Your task to perform on an android device: Search for the best books of all time on Goodreads Image 0: 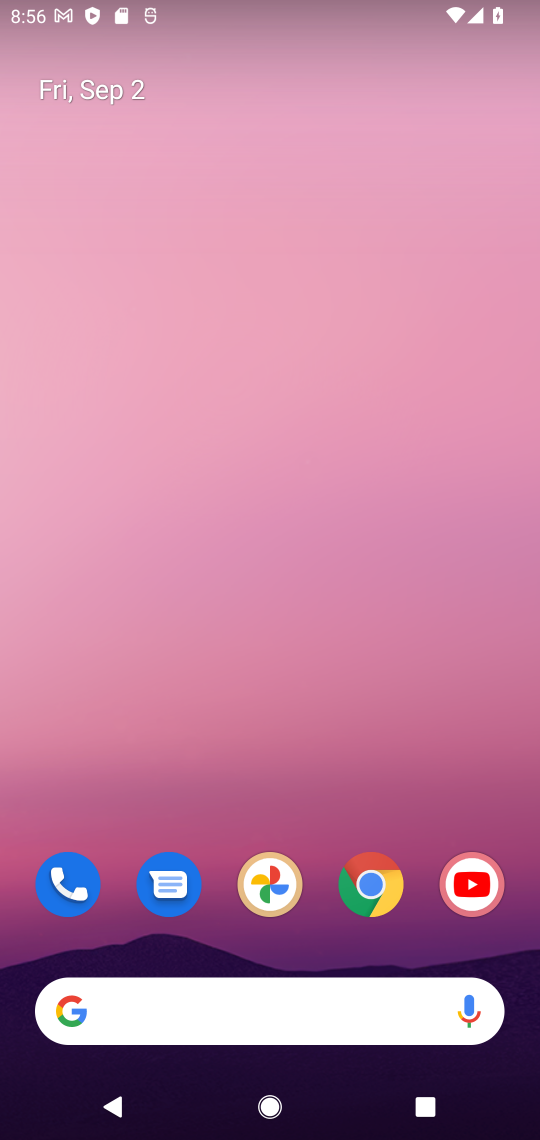
Step 0: click (393, 894)
Your task to perform on an android device: Search for the best books of all time on Goodreads Image 1: 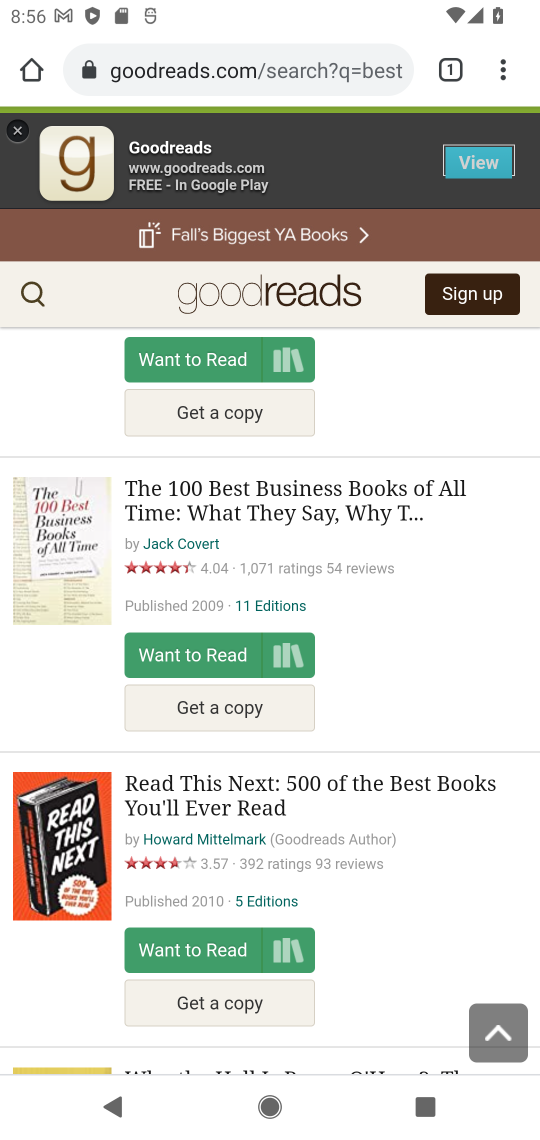
Step 1: click (38, 283)
Your task to perform on an android device: Search for the best books of all time on Goodreads Image 2: 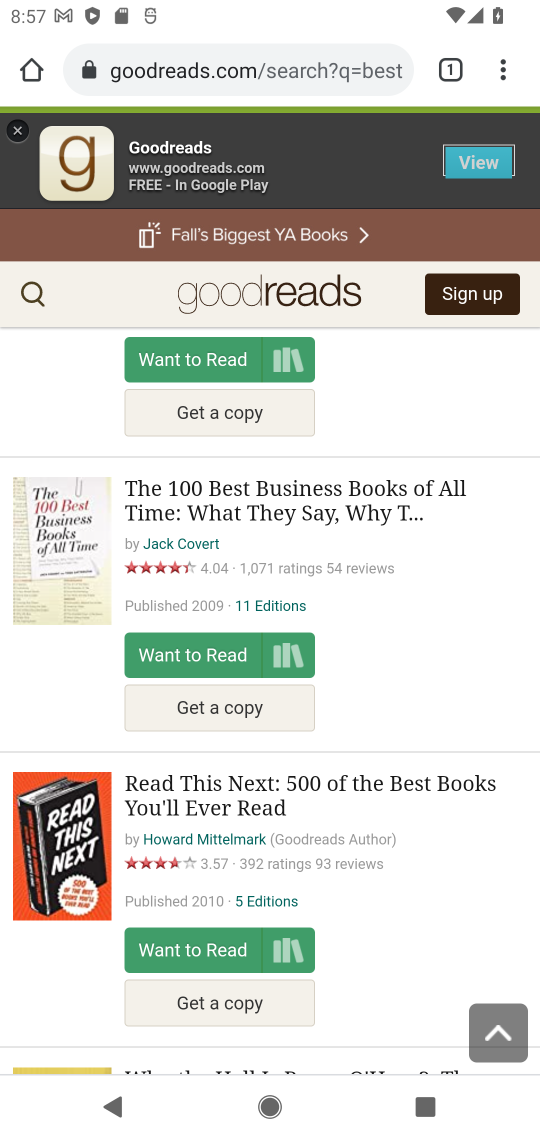
Step 2: click (30, 294)
Your task to perform on an android device: Search for the best books of all time on Goodreads Image 3: 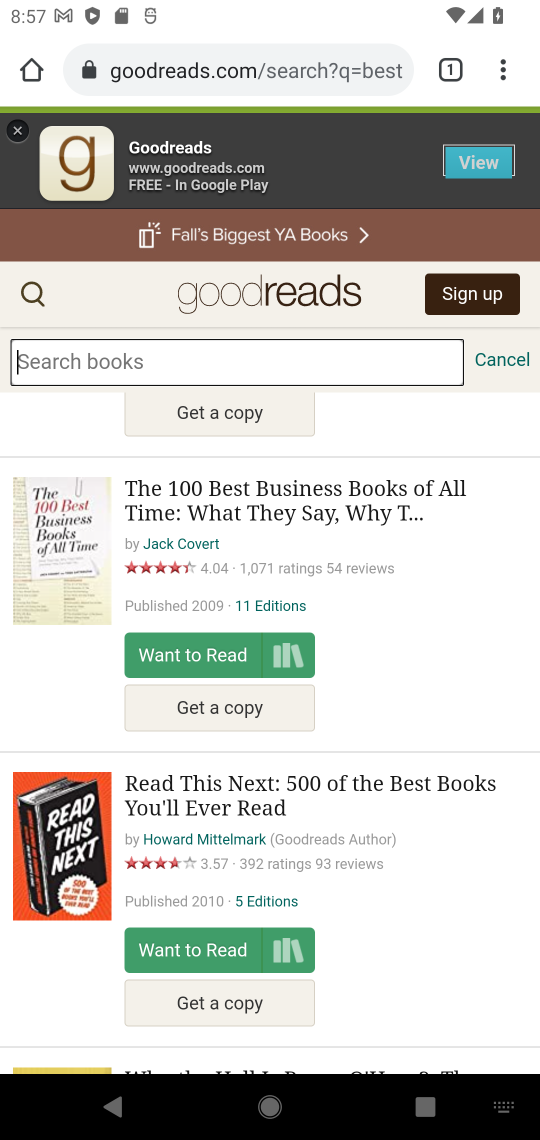
Step 3: click (71, 354)
Your task to perform on an android device: Search for the best books of all time on Goodreads Image 4: 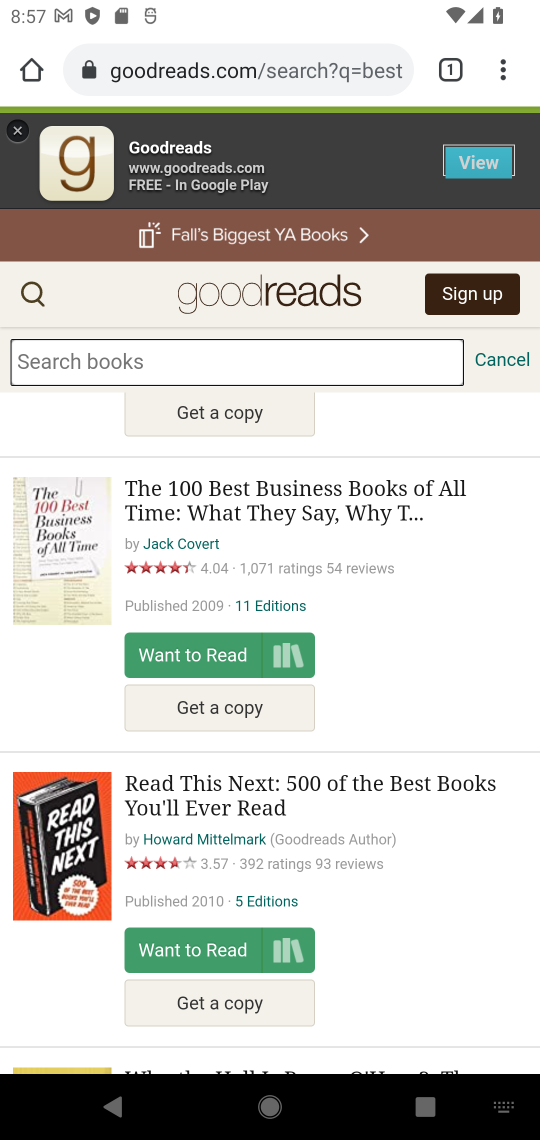
Step 4: type " best books of all time "
Your task to perform on an android device: Search for the best books of all time on Goodreads Image 5: 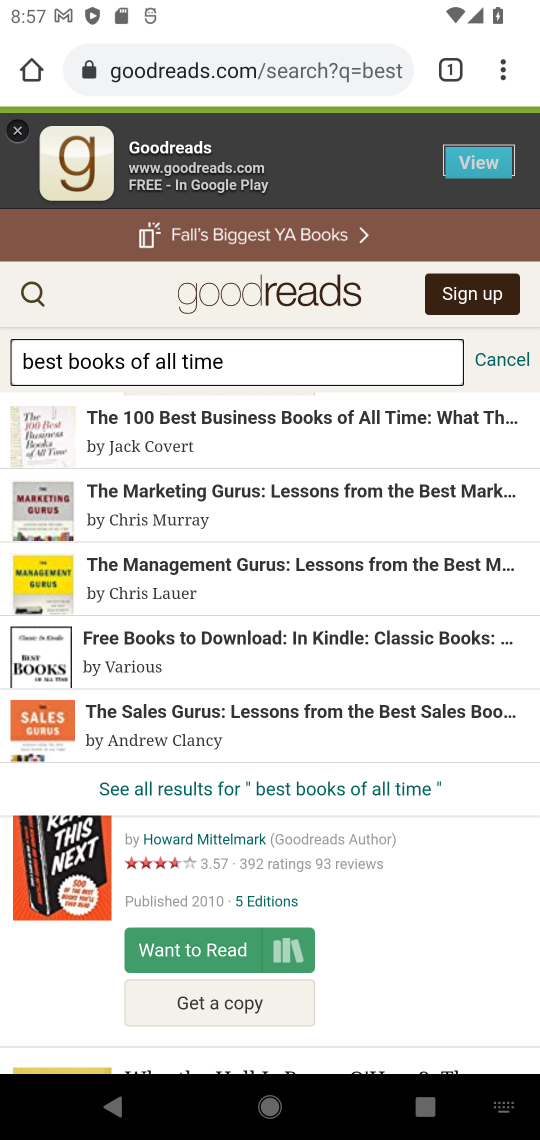
Step 5: click (346, 796)
Your task to perform on an android device: Search for the best books of all time on Goodreads Image 6: 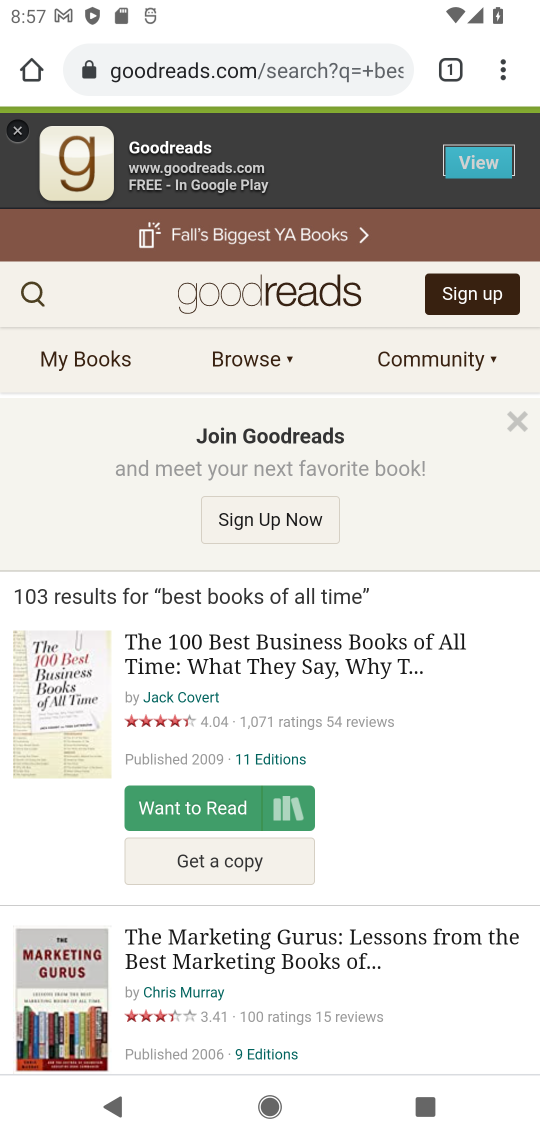
Step 6: task complete